Your task to perform on an android device: set the stopwatch Image 0: 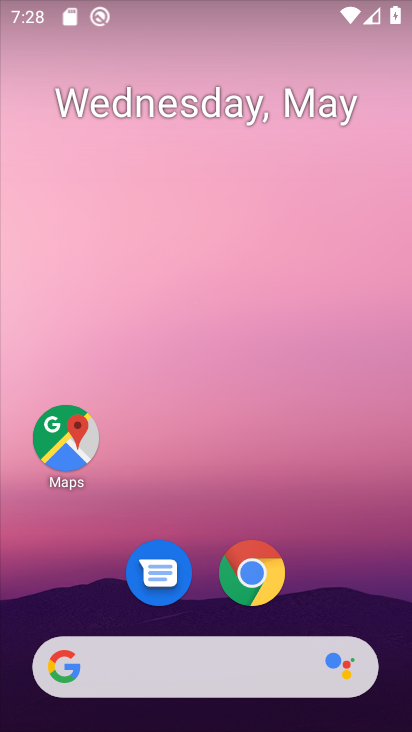
Step 0: drag from (341, 596) to (340, 2)
Your task to perform on an android device: set the stopwatch Image 1: 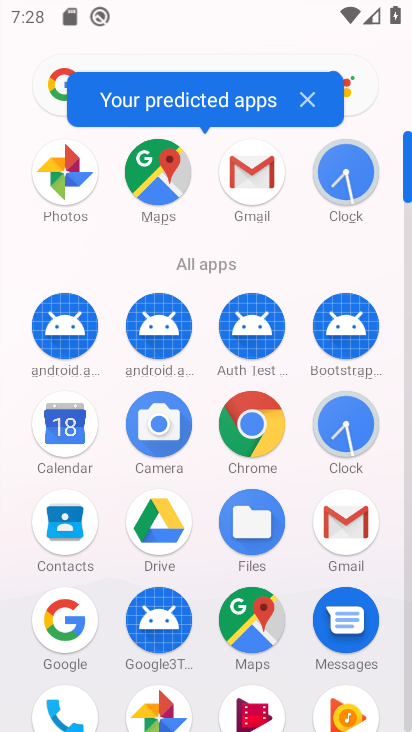
Step 1: click (341, 172)
Your task to perform on an android device: set the stopwatch Image 2: 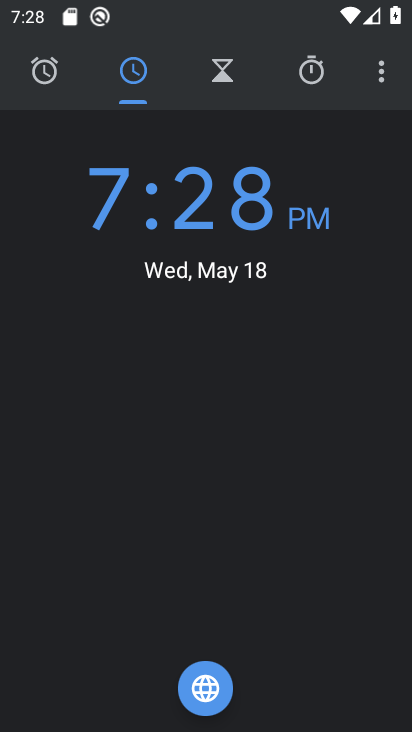
Step 2: click (280, 70)
Your task to perform on an android device: set the stopwatch Image 3: 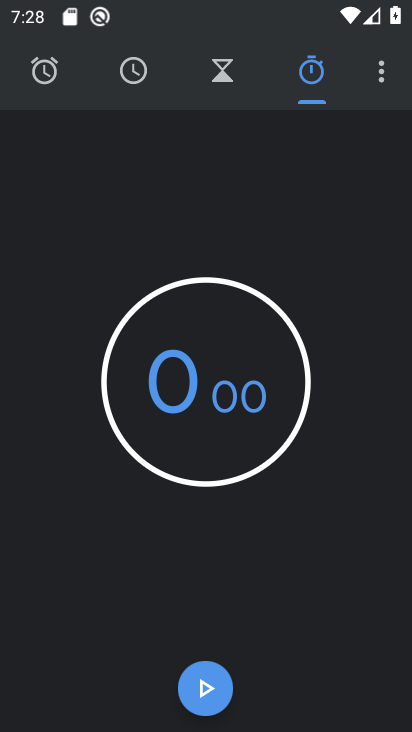
Step 3: click (195, 698)
Your task to perform on an android device: set the stopwatch Image 4: 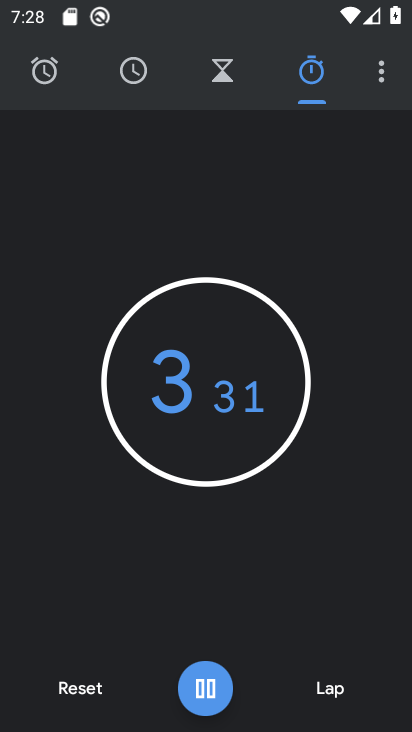
Step 4: task complete